Your task to perform on an android device: When is my next appointment? Image 0: 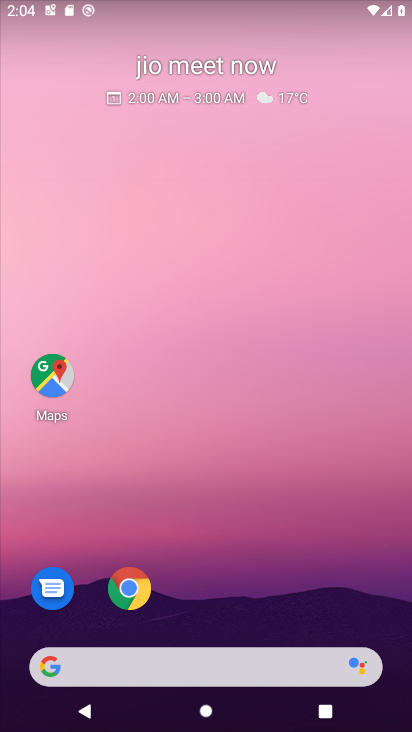
Step 0: drag from (239, 721) to (248, 30)
Your task to perform on an android device: When is my next appointment? Image 1: 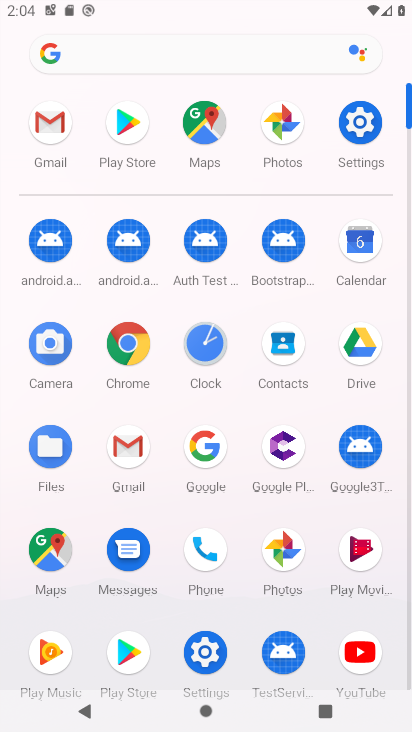
Step 1: click (357, 258)
Your task to perform on an android device: When is my next appointment? Image 2: 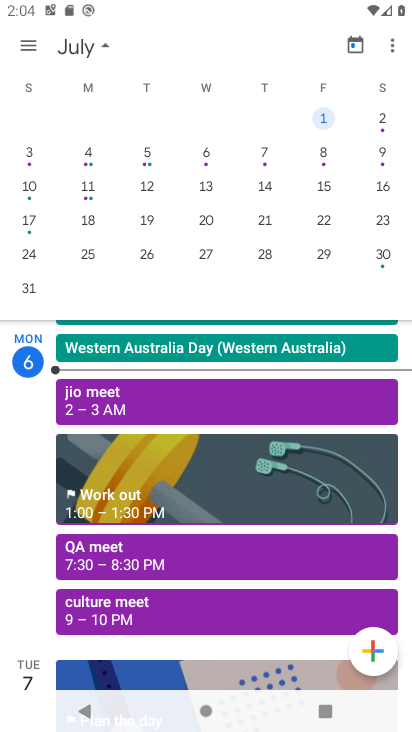
Step 2: click (24, 49)
Your task to perform on an android device: When is my next appointment? Image 3: 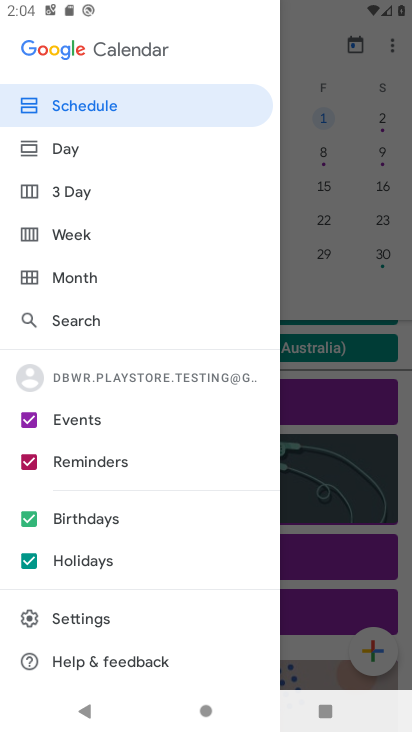
Step 3: click (73, 104)
Your task to perform on an android device: When is my next appointment? Image 4: 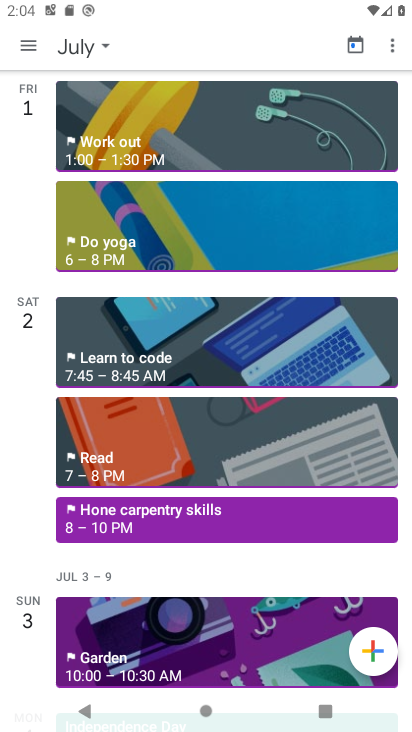
Step 4: task complete